Your task to perform on an android device: turn off notifications settings in the gmail app Image 0: 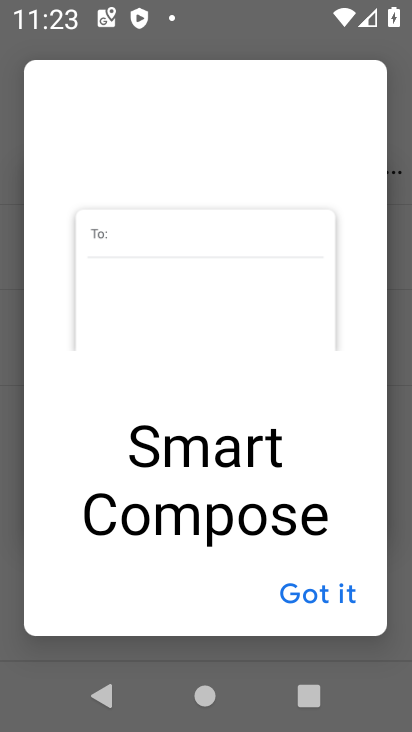
Step 0: press home button
Your task to perform on an android device: turn off notifications settings in the gmail app Image 1: 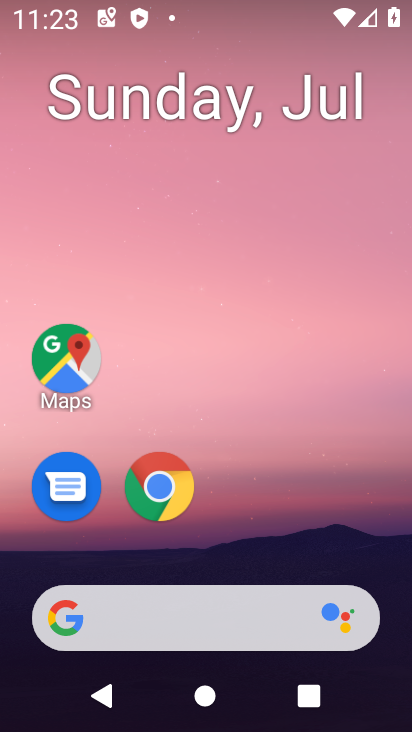
Step 1: drag from (377, 542) to (372, 91)
Your task to perform on an android device: turn off notifications settings in the gmail app Image 2: 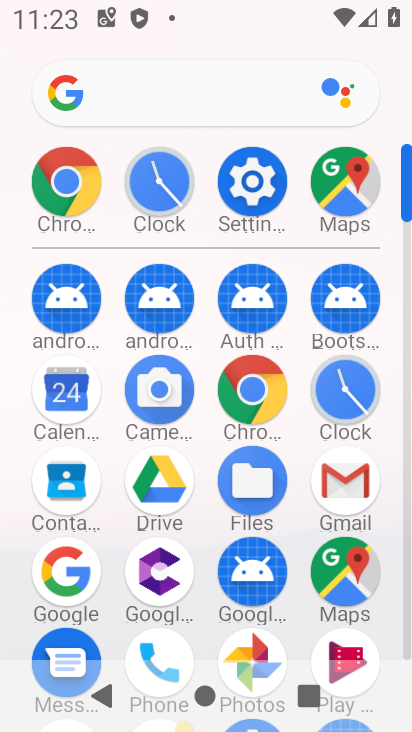
Step 2: click (349, 482)
Your task to perform on an android device: turn off notifications settings in the gmail app Image 3: 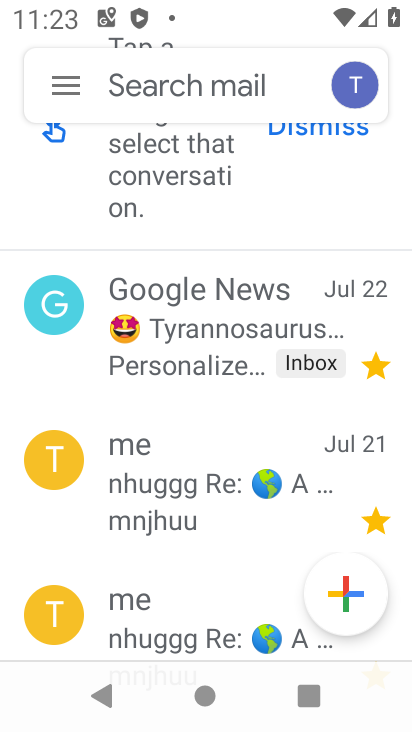
Step 3: click (64, 81)
Your task to perform on an android device: turn off notifications settings in the gmail app Image 4: 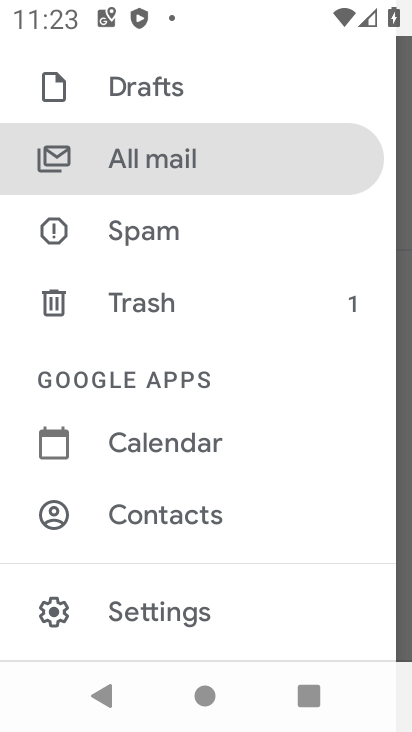
Step 4: drag from (270, 458) to (264, 363)
Your task to perform on an android device: turn off notifications settings in the gmail app Image 5: 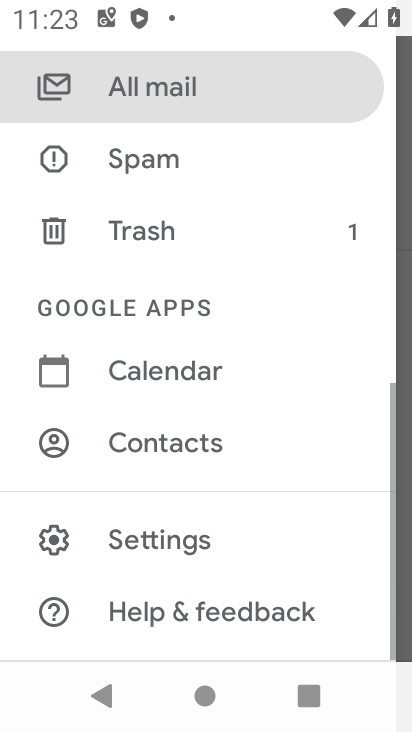
Step 5: drag from (271, 537) to (252, 374)
Your task to perform on an android device: turn off notifications settings in the gmail app Image 6: 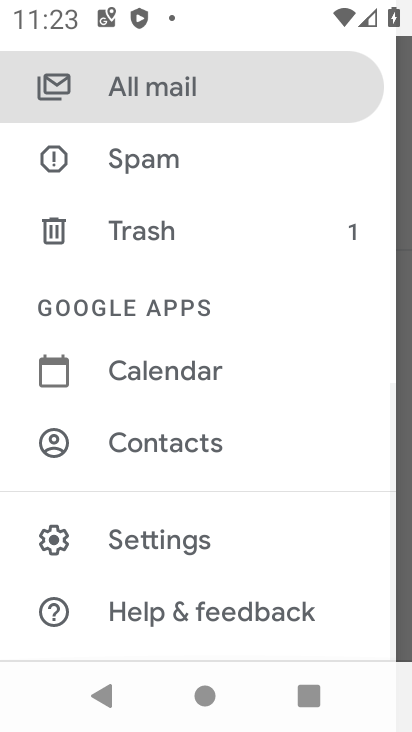
Step 6: click (255, 544)
Your task to perform on an android device: turn off notifications settings in the gmail app Image 7: 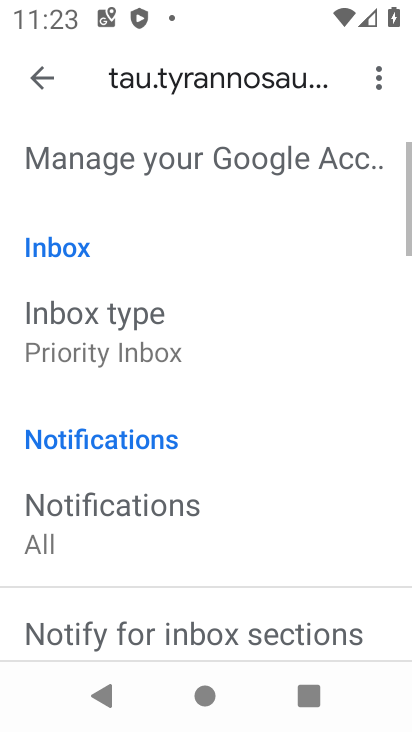
Step 7: drag from (255, 544) to (262, 419)
Your task to perform on an android device: turn off notifications settings in the gmail app Image 8: 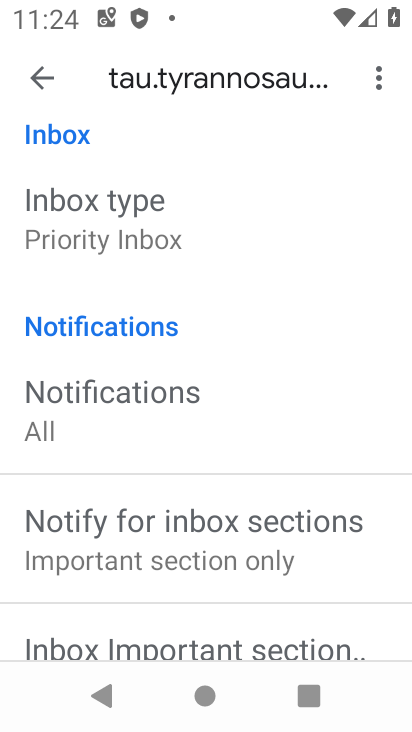
Step 8: drag from (260, 532) to (265, 371)
Your task to perform on an android device: turn off notifications settings in the gmail app Image 9: 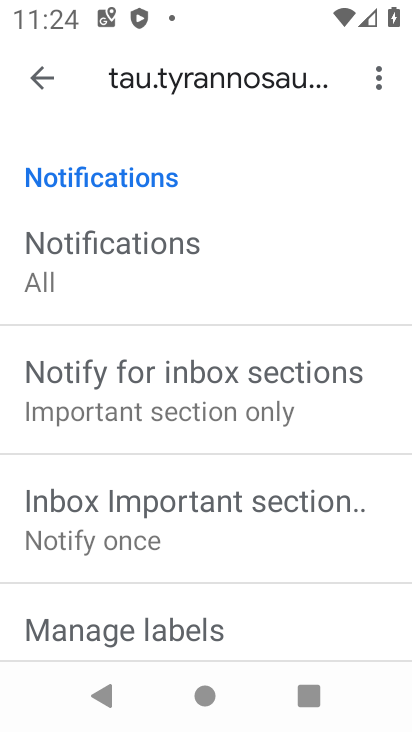
Step 9: drag from (273, 515) to (270, 405)
Your task to perform on an android device: turn off notifications settings in the gmail app Image 10: 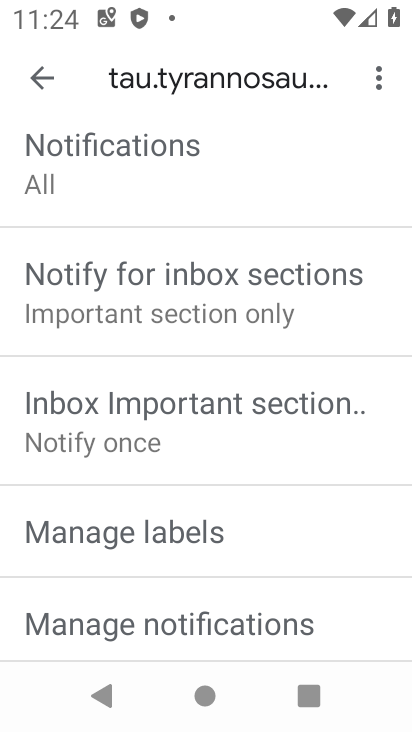
Step 10: drag from (271, 534) to (270, 410)
Your task to perform on an android device: turn off notifications settings in the gmail app Image 11: 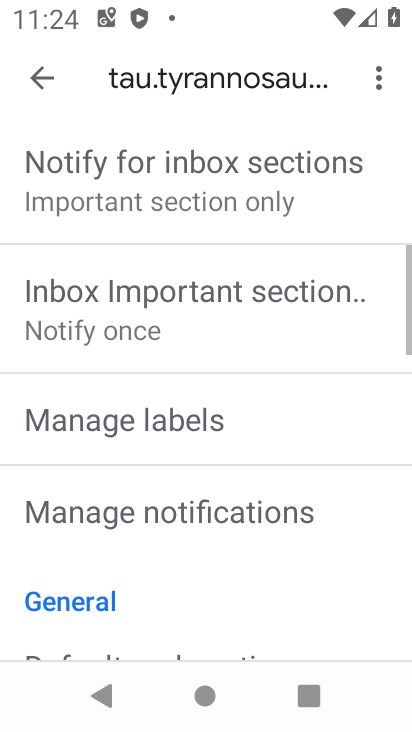
Step 11: drag from (255, 578) to (259, 427)
Your task to perform on an android device: turn off notifications settings in the gmail app Image 12: 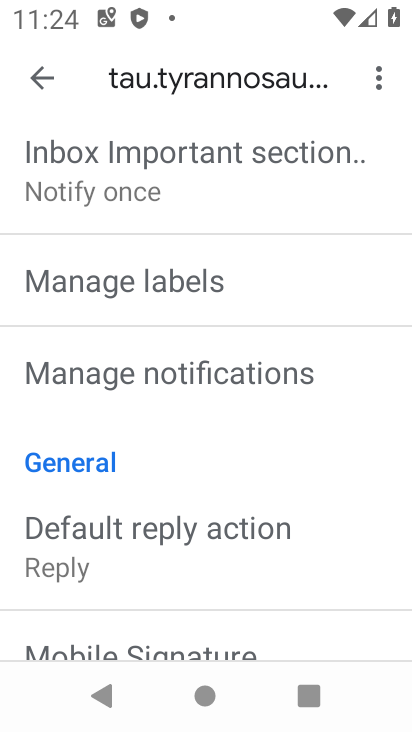
Step 12: click (286, 377)
Your task to perform on an android device: turn off notifications settings in the gmail app Image 13: 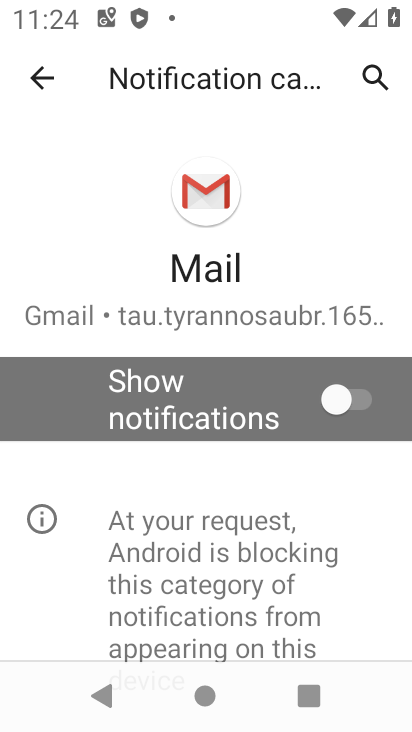
Step 13: task complete